Your task to perform on an android device: allow notifications from all sites in the chrome app Image 0: 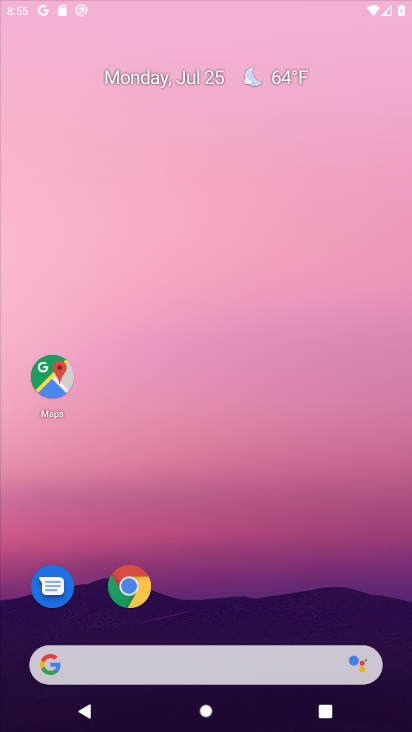
Step 0: click (183, 108)
Your task to perform on an android device: allow notifications from all sites in the chrome app Image 1: 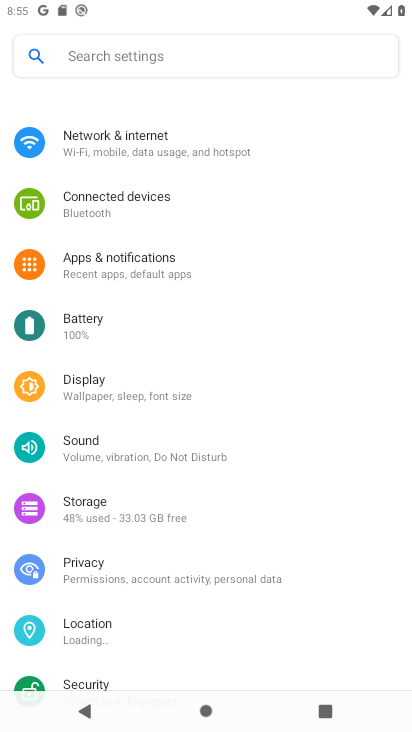
Step 1: press home button
Your task to perform on an android device: allow notifications from all sites in the chrome app Image 2: 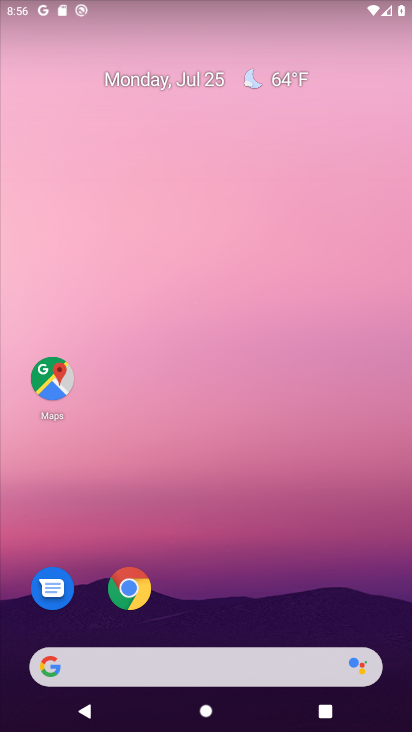
Step 2: click (126, 586)
Your task to perform on an android device: allow notifications from all sites in the chrome app Image 3: 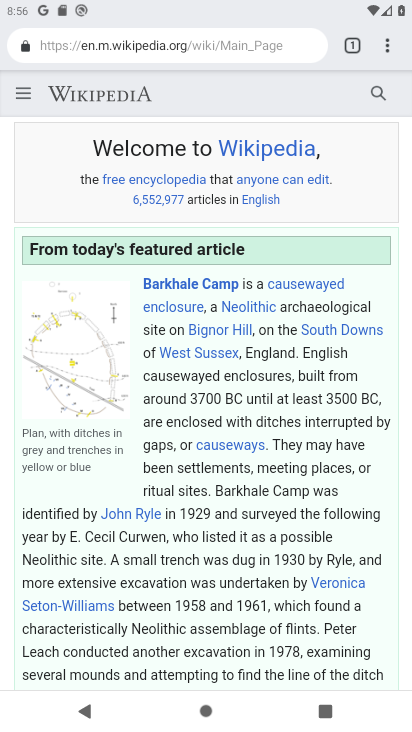
Step 3: drag from (385, 42) to (256, 555)
Your task to perform on an android device: allow notifications from all sites in the chrome app Image 4: 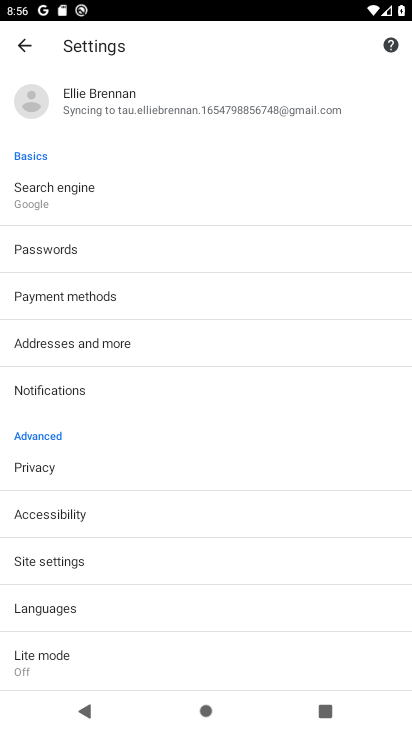
Step 4: click (76, 557)
Your task to perform on an android device: allow notifications from all sites in the chrome app Image 5: 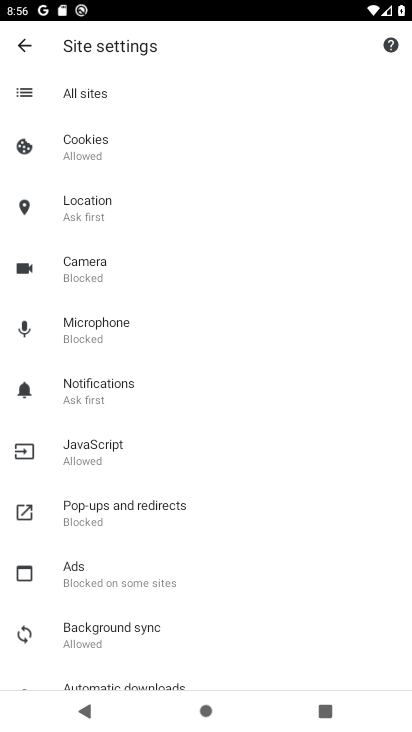
Step 5: click (89, 387)
Your task to perform on an android device: allow notifications from all sites in the chrome app Image 6: 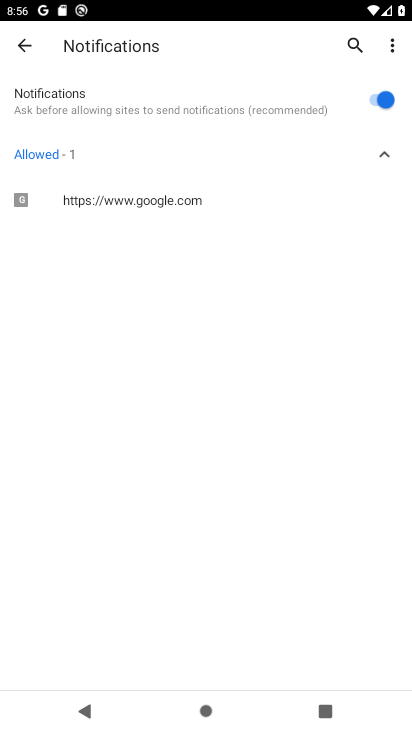
Step 6: task complete